Your task to perform on an android device: When is my next meeting? Image 0: 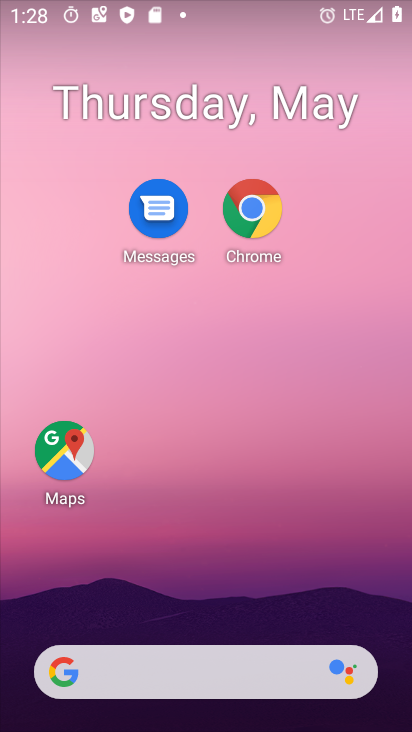
Step 0: drag from (246, 590) to (207, 58)
Your task to perform on an android device: When is my next meeting? Image 1: 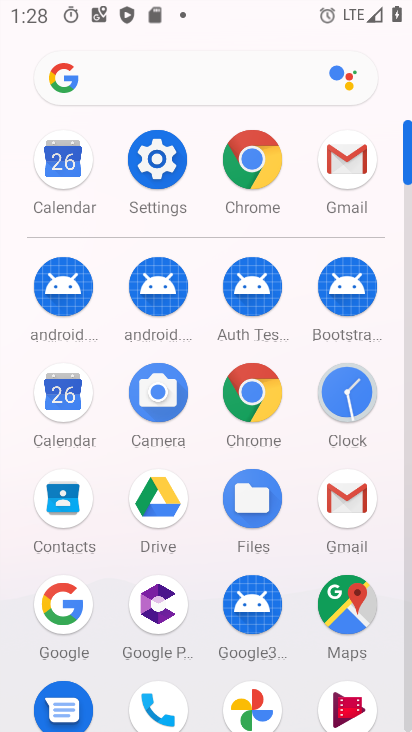
Step 1: click (68, 428)
Your task to perform on an android device: When is my next meeting? Image 2: 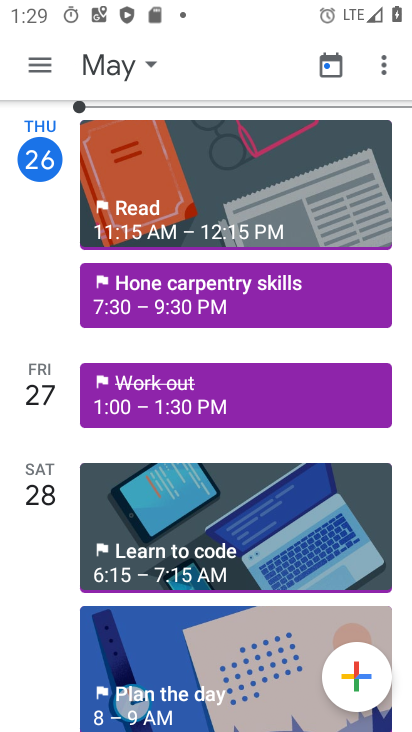
Step 2: task complete